Your task to perform on an android device: Go to battery settings Image 0: 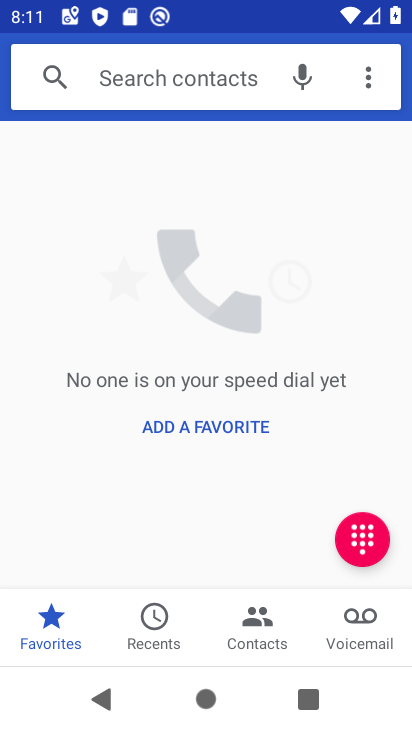
Step 0: press home button
Your task to perform on an android device: Go to battery settings Image 1: 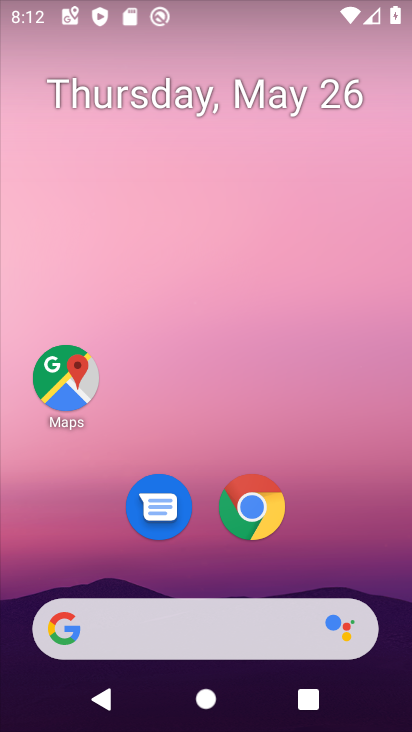
Step 1: drag from (226, 575) to (251, 175)
Your task to perform on an android device: Go to battery settings Image 2: 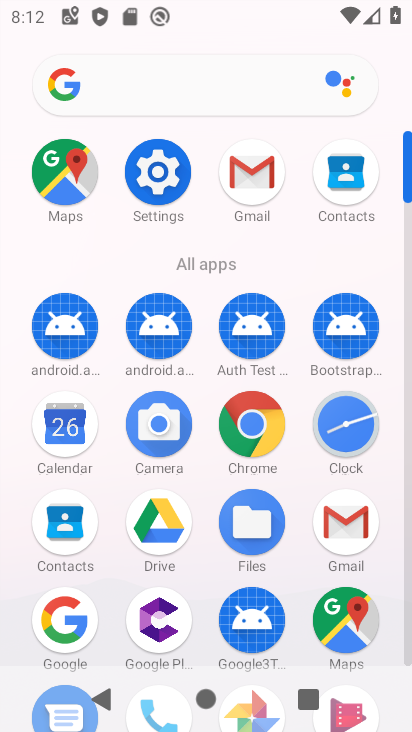
Step 2: click (158, 164)
Your task to perform on an android device: Go to battery settings Image 3: 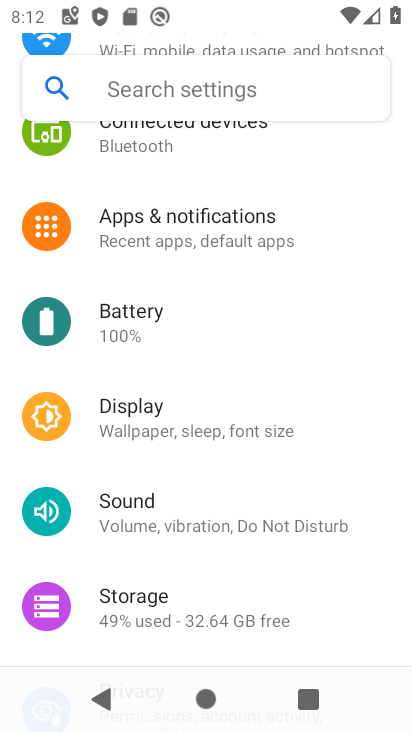
Step 3: click (162, 325)
Your task to perform on an android device: Go to battery settings Image 4: 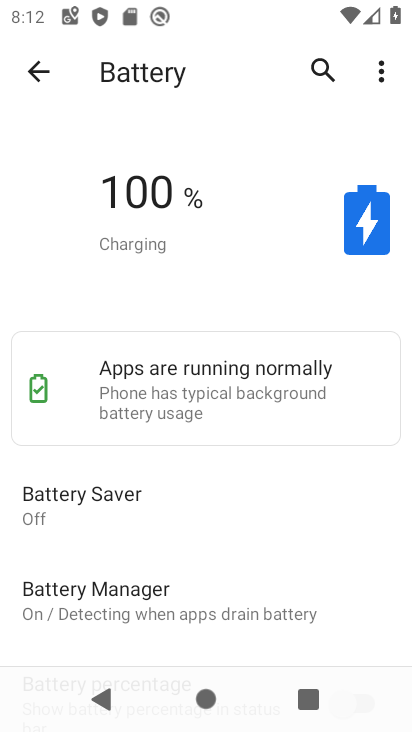
Step 4: task complete